Your task to perform on an android device: Go to Reddit.com Image 0: 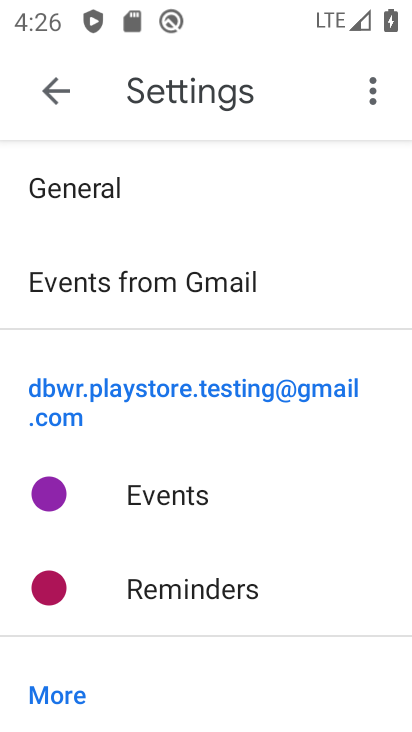
Step 0: press home button
Your task to perform on an android device: Go to Reddit.com Image 1: 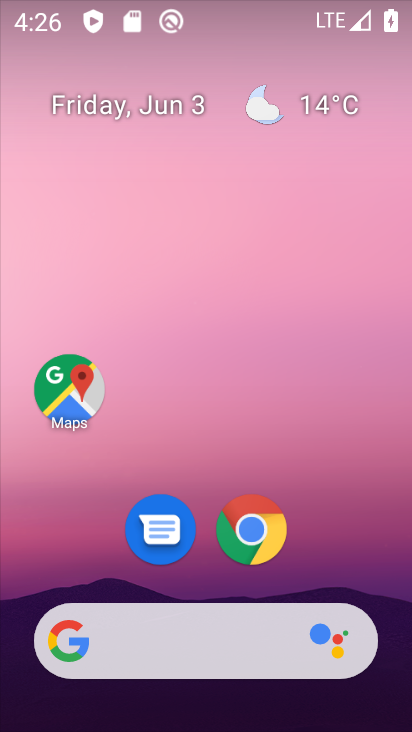
Step 1: click (249, 522)
Your task to perform on an android device: Go to Reddit.com Image 2: 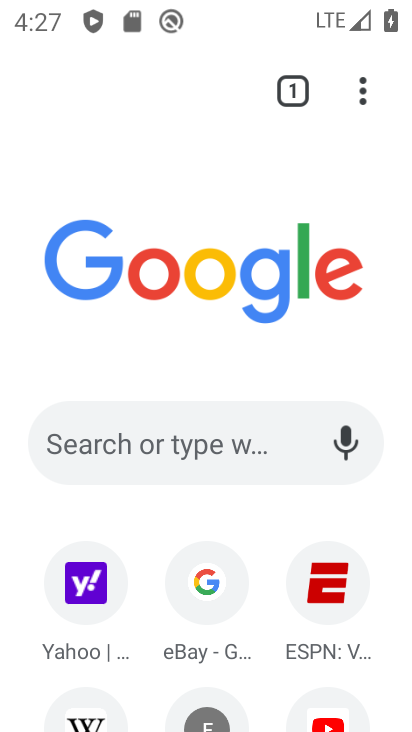
Step 2: click (113, 439)
Your task to perform on an android device: Go to Reddit.com Image 3: 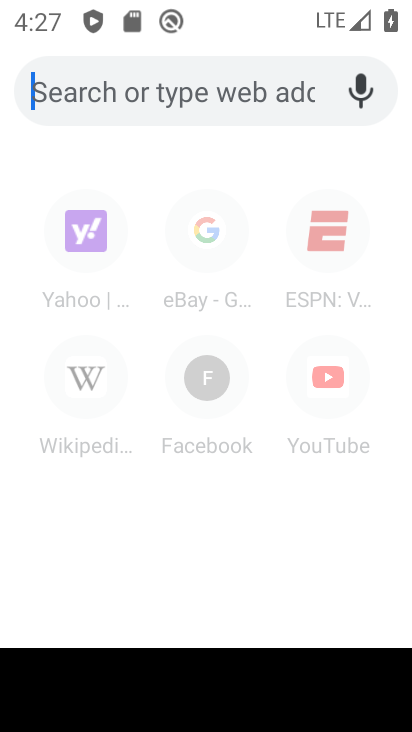
Step 3: type "reddit"
Your task to perform on an android device: Go to Reddit.com Image 4: 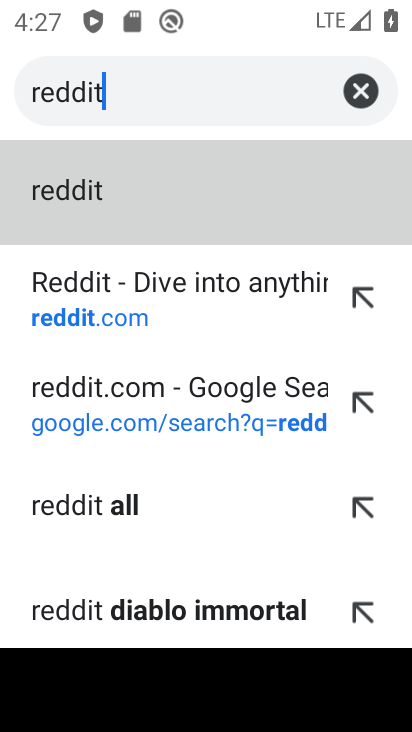
Step 4: click (171, 307)
Your task to perform on an android device: Go to Reddit.com Image 5: 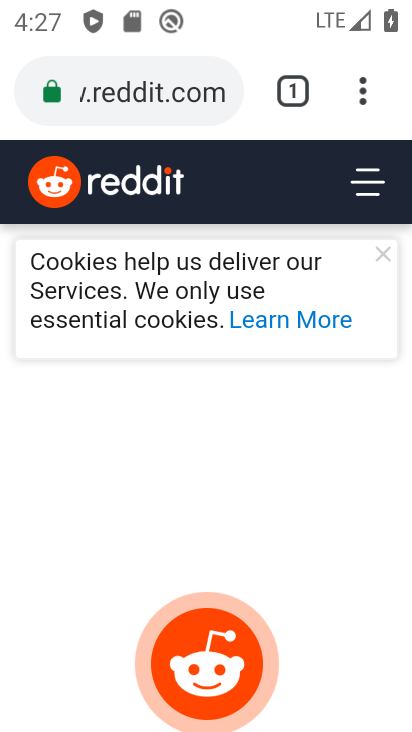
Step 5: drag from (245, 552) to (261, 308)
Your task to perform on an android device: Go to Reddit.com Image 6: 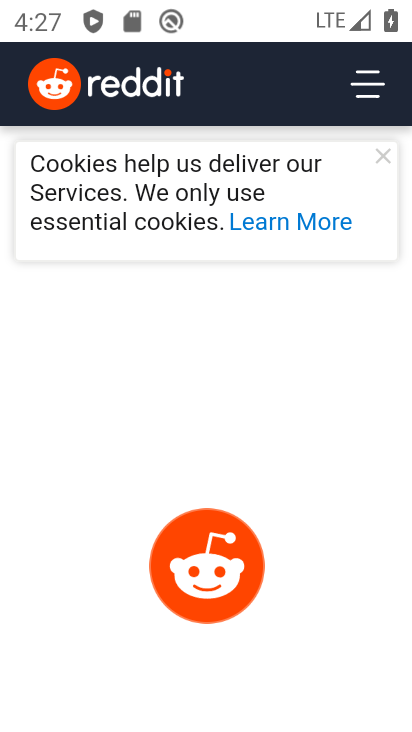
Step 6: click (384, 154)
Your task to perform on an android device: Go to Reddit.com Image 7: 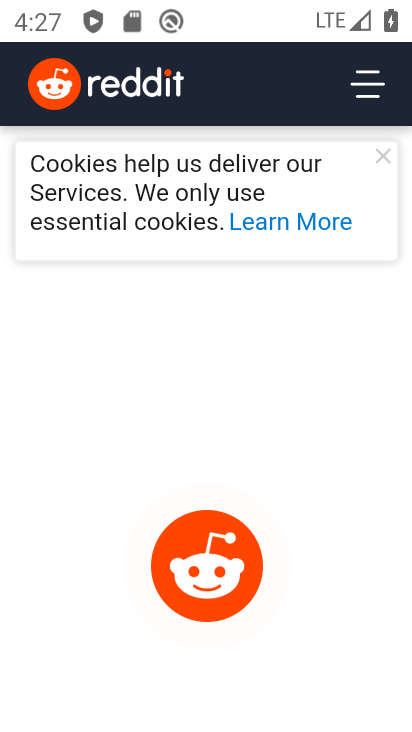
Step 7: task complete